Your task to perform on an android device: Open the calendar app, open the side menu, and click the "Day" option Image 0: 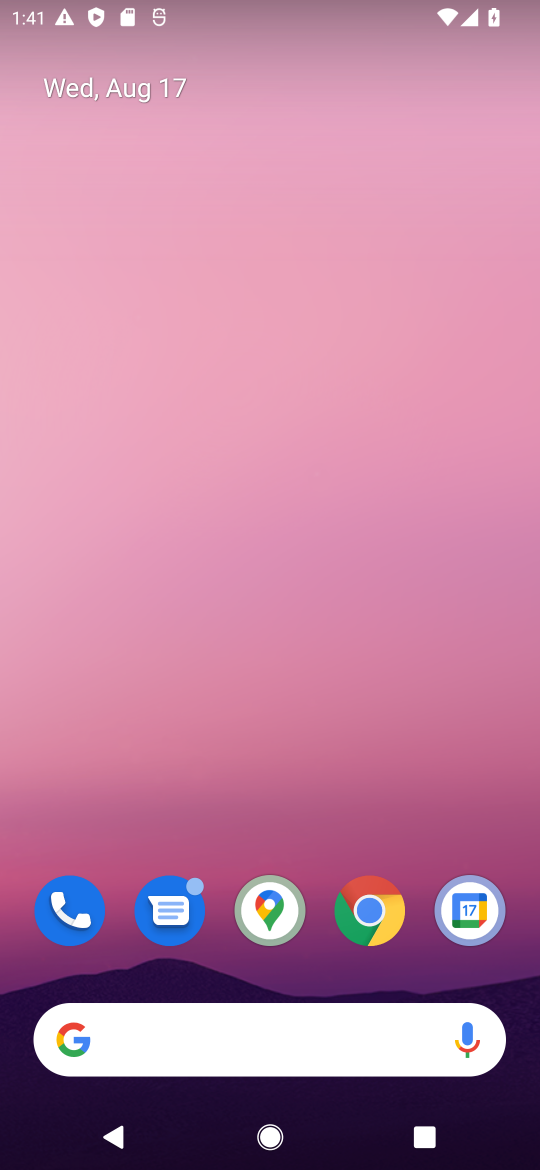
Step 0: click (459, 901)
Your task to perform on an android device: Open the calendar app, open the side menu, and click the "Day" option Image 1: 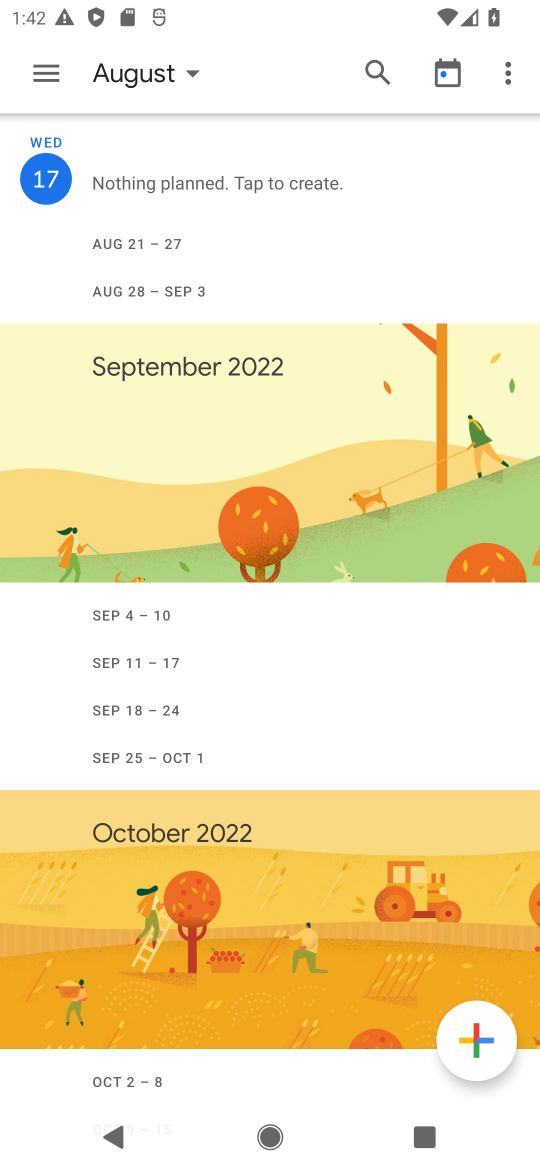
Step 1: click (55, 78)
Your task to perform on an android device: Open the calendar app, open the side menu, and click the "Day" option Image 2: 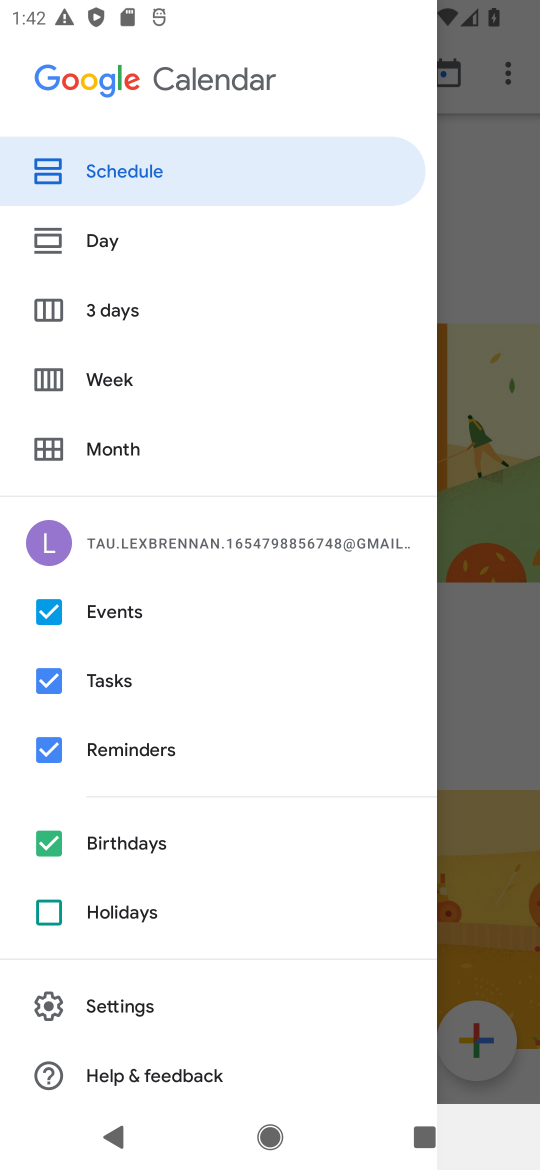
Step 2: click (136, 223)
Your task to perform on an android device: Open the calendar app, open the side menu, and click the "Day" option Image 3: 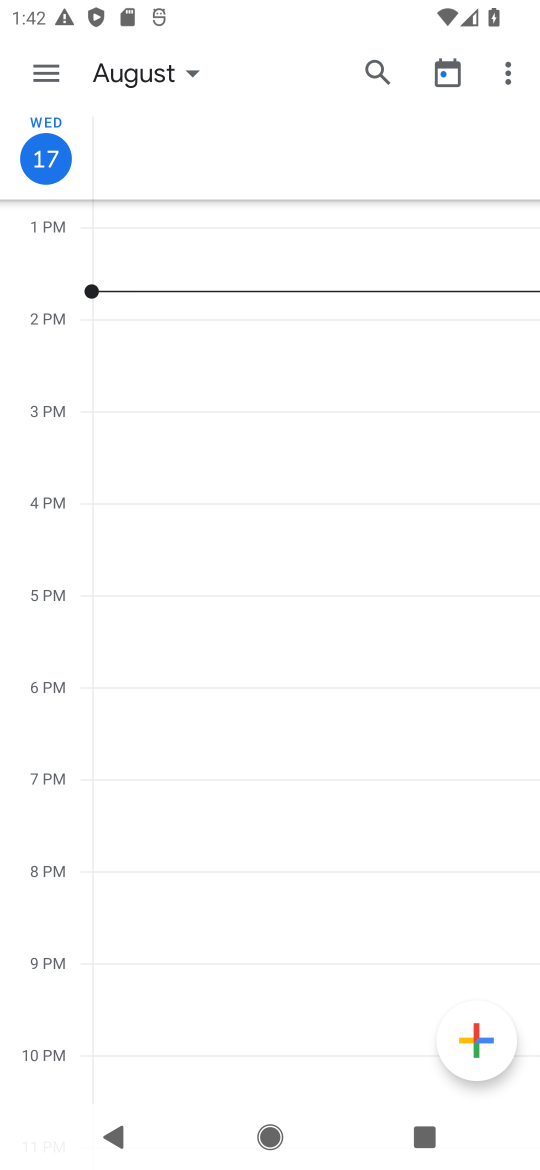
Step 3: task complete